Your task to perform on an android device: Show me the alarms in the clock app Image 0: 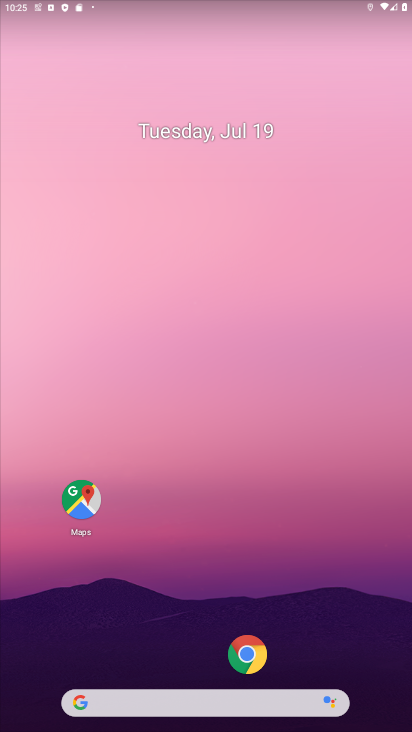
Step 0: drag from (150, 651) to (155, 44)
Your task to perform on an android device: Show me the alarms in the clock app Image 1: 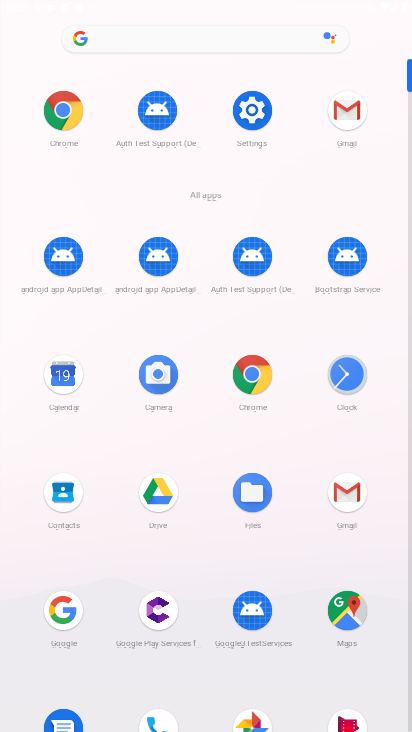
Step 1: click (335, 390)
Your task to perform on an android device: Show me the alarms in the clock app Image 2: 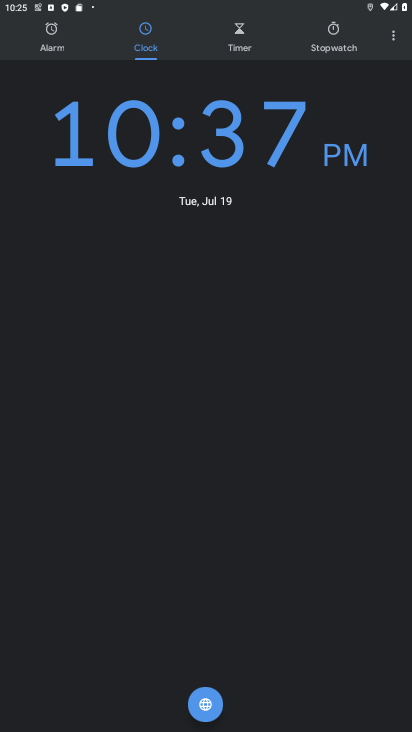
Step 2: click (64, 51)
Your task to perform on an android device: Show me the alarms in the clock app Image 3: 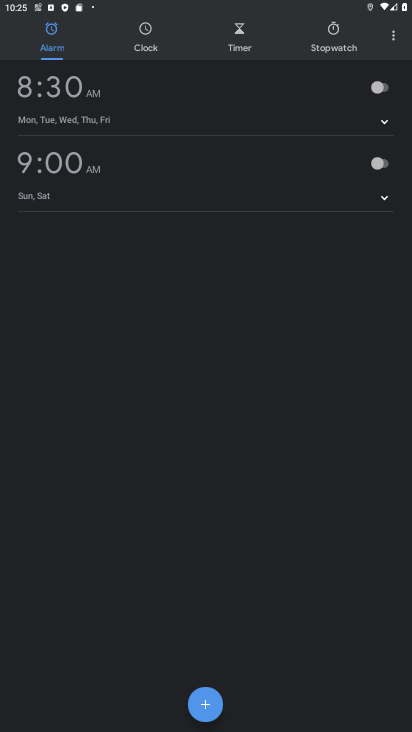
Step 3: click (381, 108)
Your task to perform on an android device: Show me the alarms in the clock app Image 4: 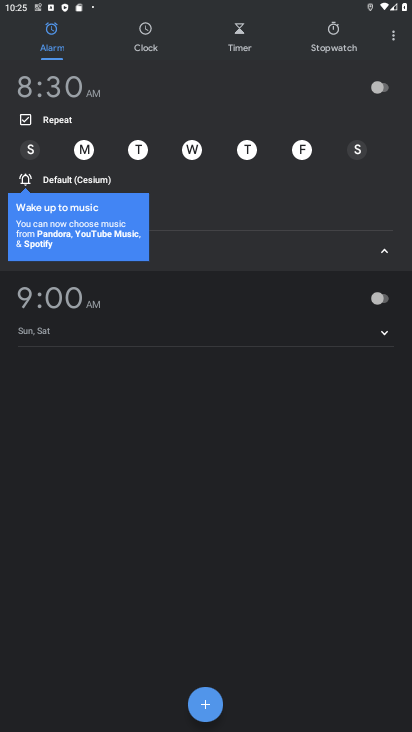
Step 4: click (380, 97)
Your task to perform on an android device: Show me the alarms in the clock app Image 5: 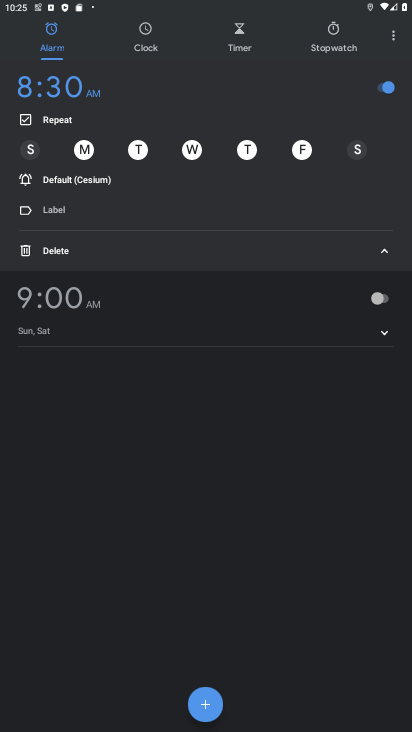
Step 5: task complete